Your task to perform on an android device: toggle javascript in the chrome app Image 0: 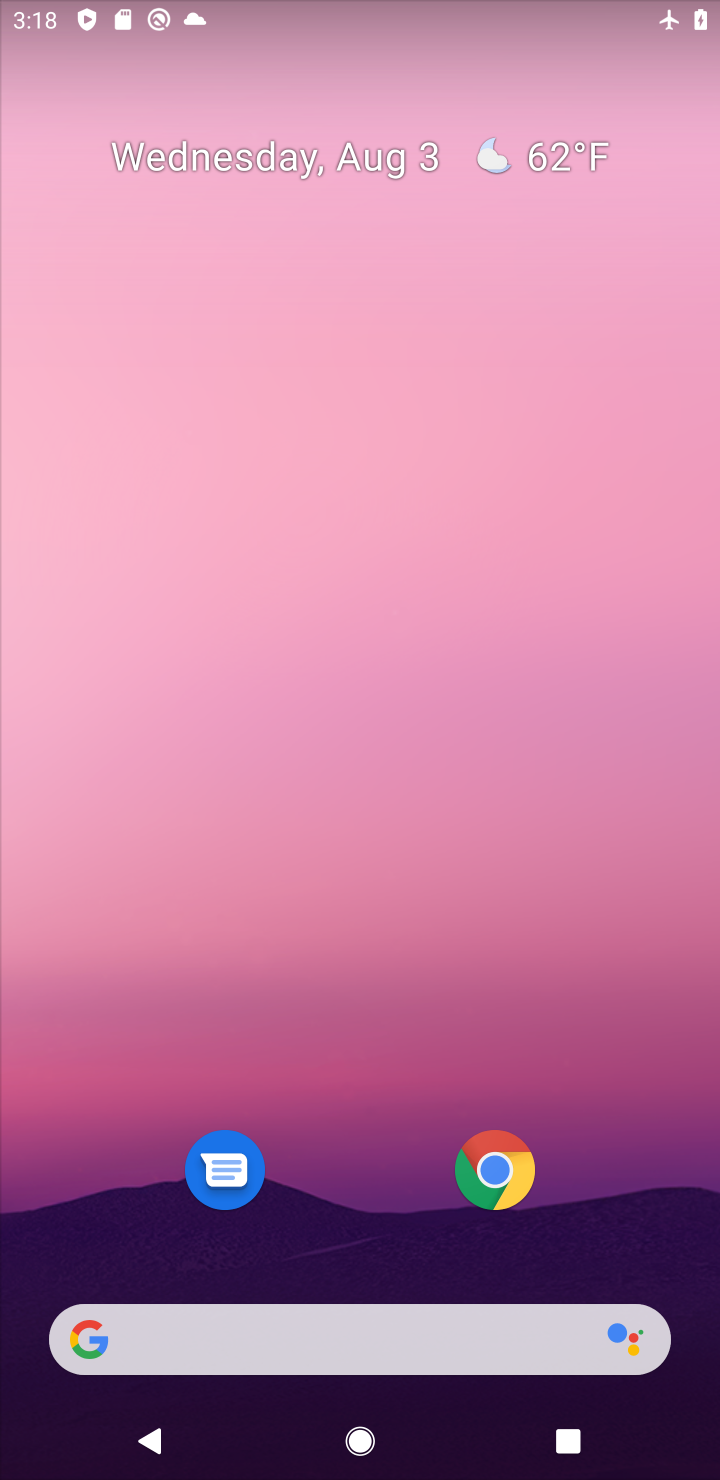
Step 0: click (490, 1180)
Your task to perform on an android device: toggle javascript in the chrome app Image 1: 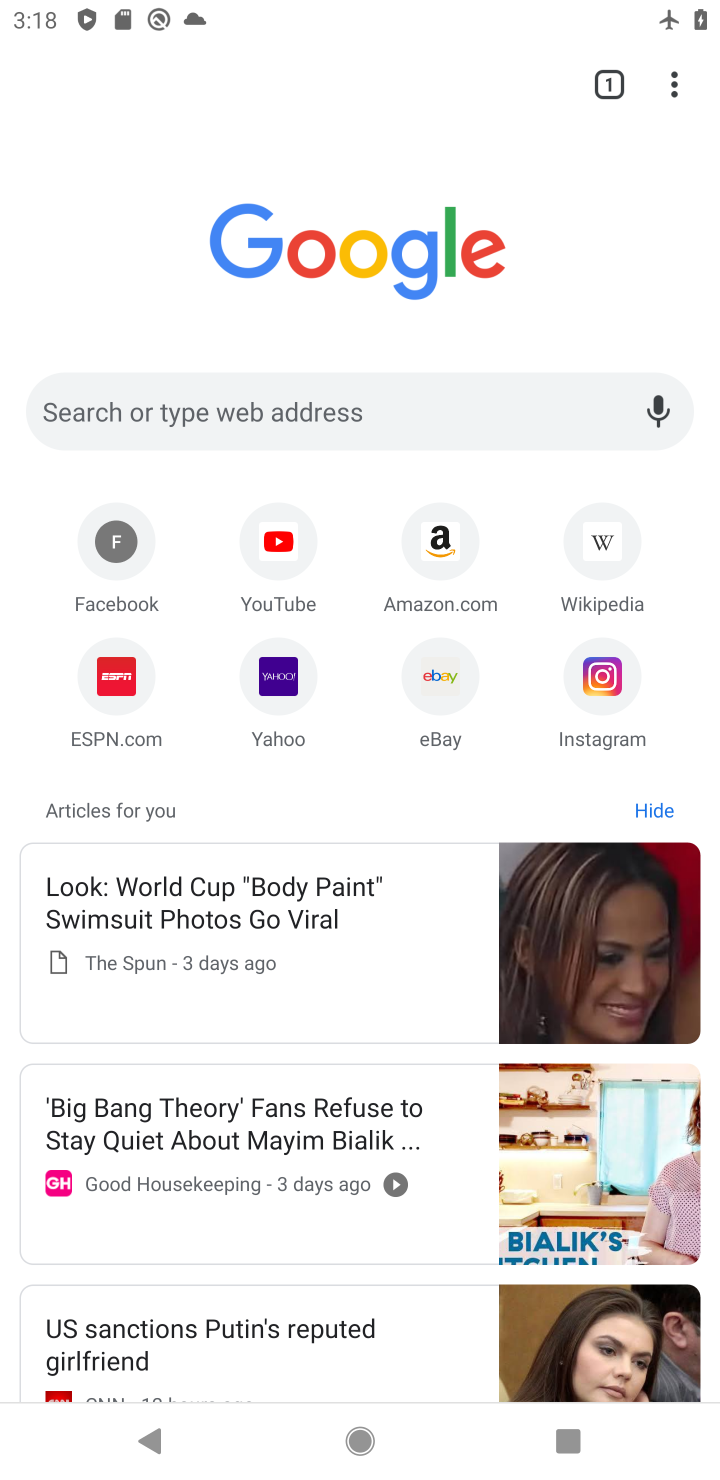
Step 1: click (670, 90)
Your task to perform on an android device: toggle javascript in the chrome app Image 2: 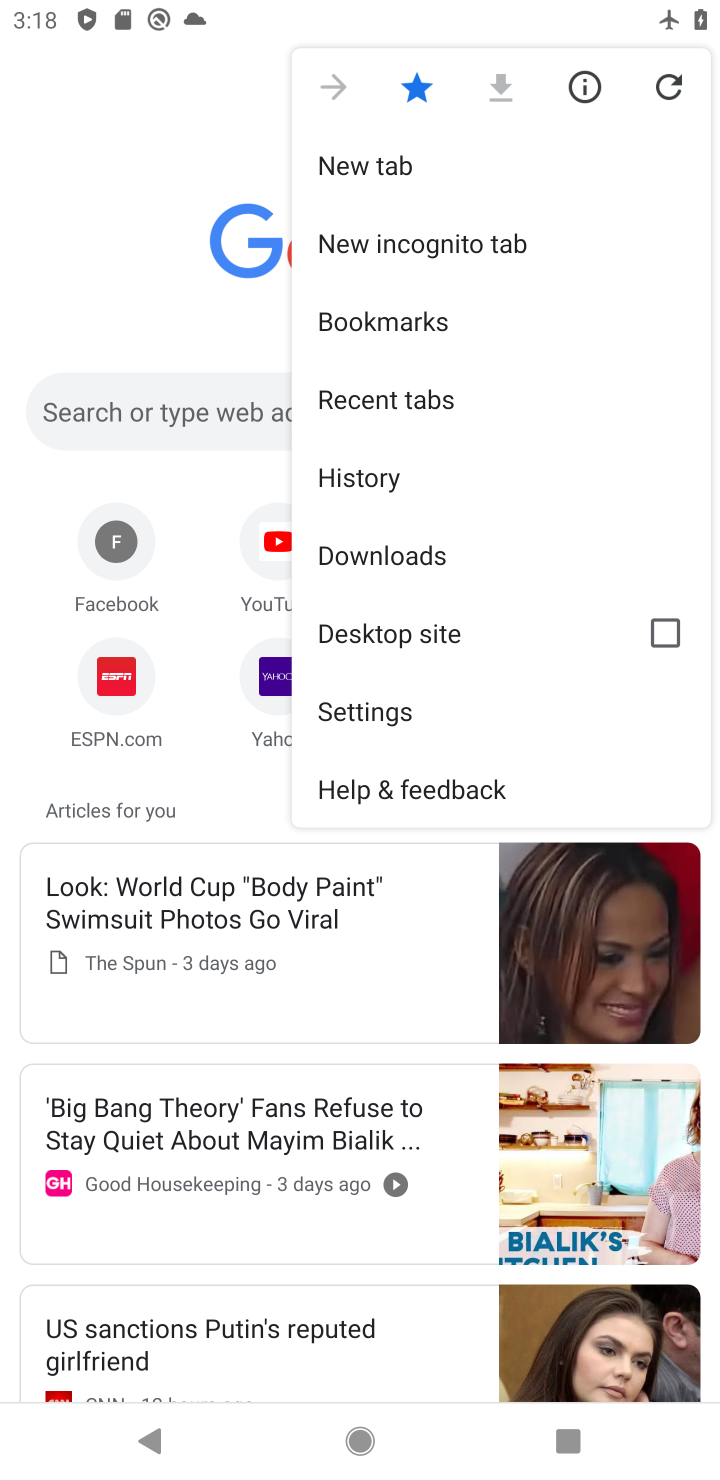
Step 2: click (362, 716)
Your task to perform on an android device: toggle javascript in the chrome app Image 3: 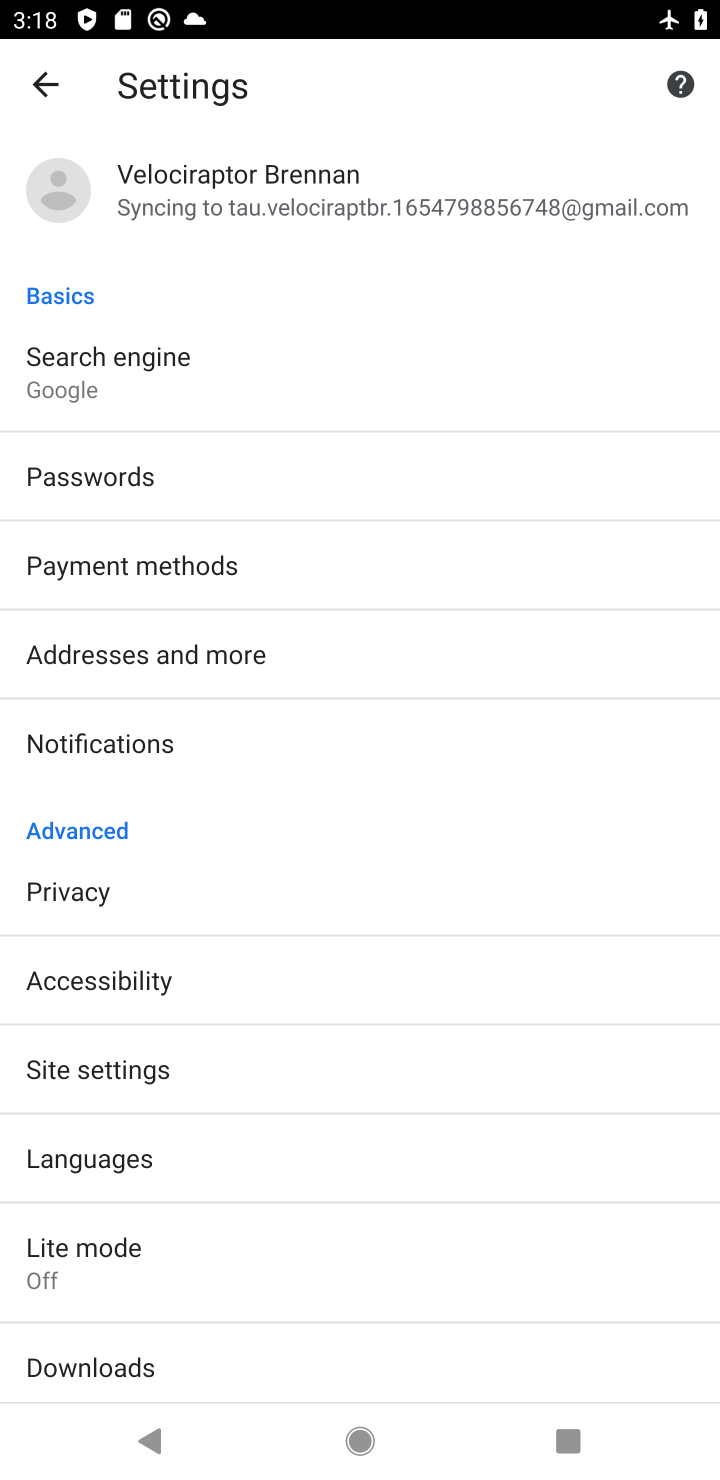
Step 3: click (61, 1066)
Your task to perform on an android device: toggle javascript in the chrome app Image 4: 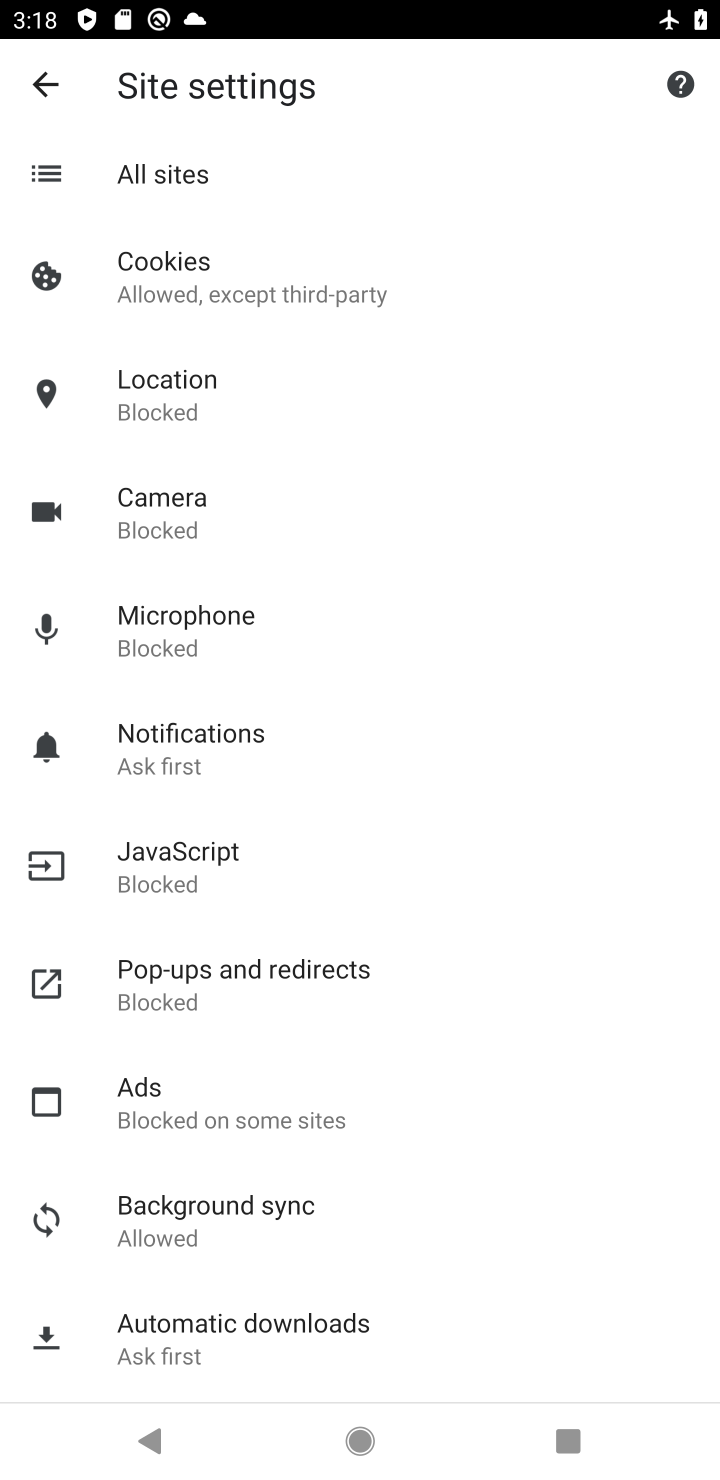
Step 4: click (189, 855)
Your task to perform on an android device: toggle javascript in the chrome app Image 5: 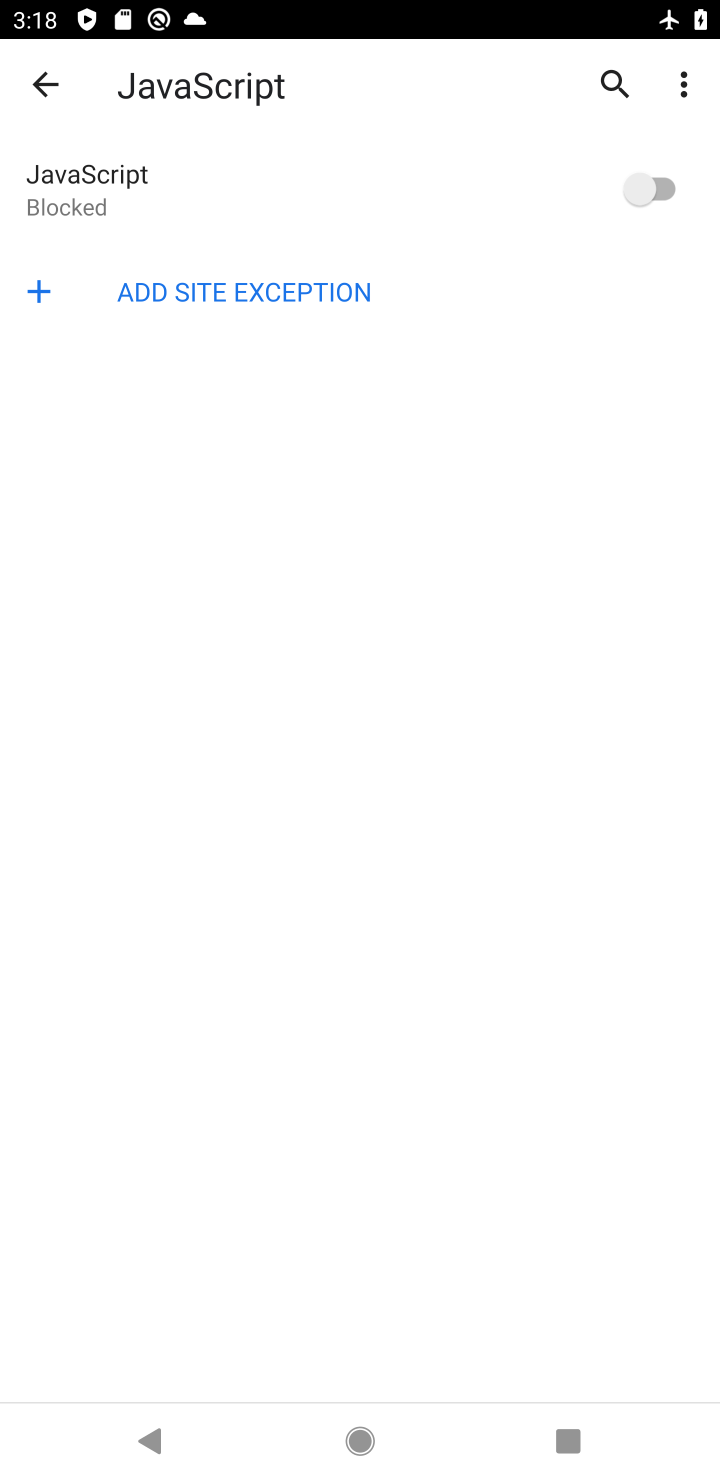
Step 5: click (651, 194)
Your task to perform on an android device: toggle javascript in the chrome app Image 6: 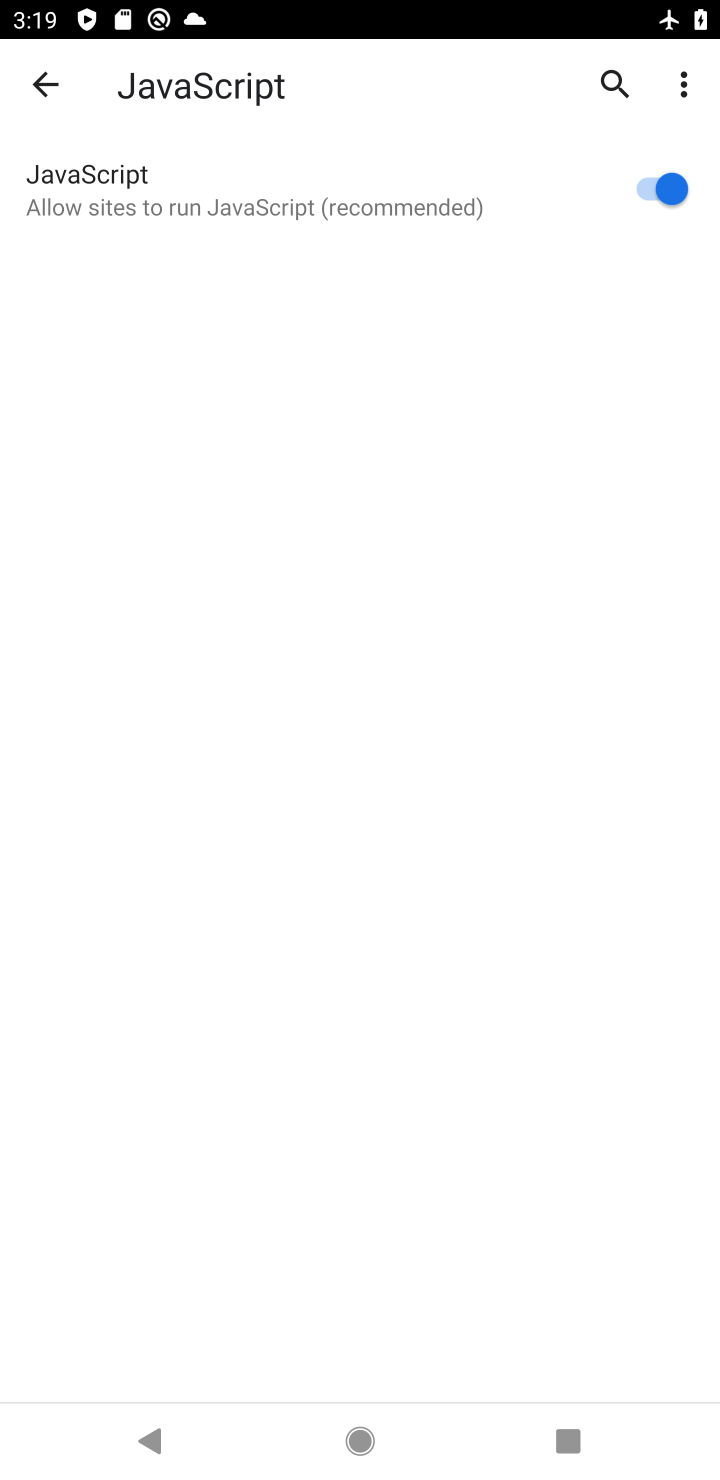
Step 6: task complete